Your task to perform on an android device: turn on the 12-hour format for clock Image 0: 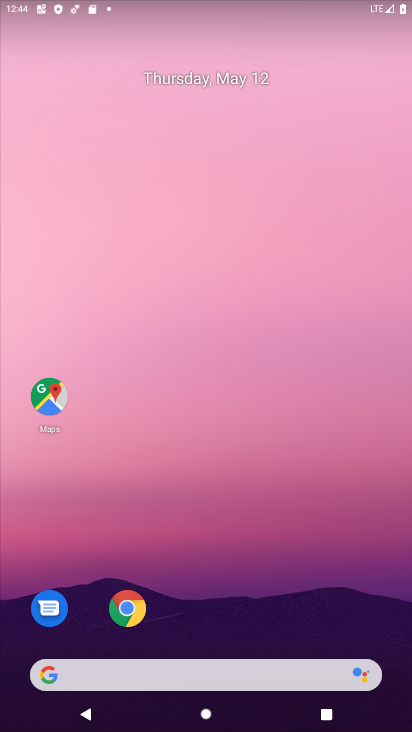
Step 0: drag from (292, 639) to (320, 7)
Your task to perform on an android device: turn on the 12-hour format for clock Image 1: 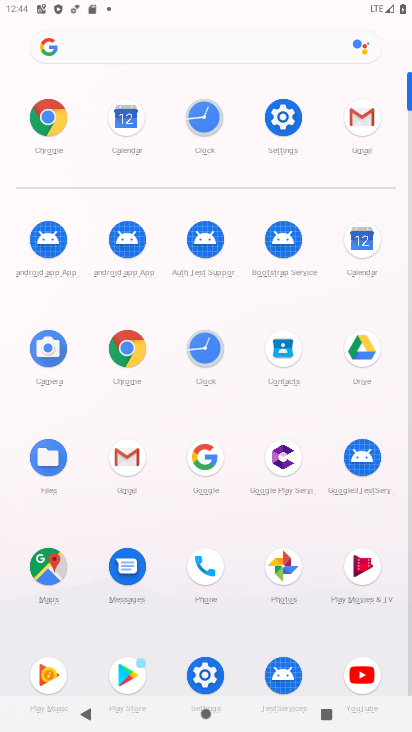
Step 1: click (202, 121)
Your task to perform on an android device: turn on the 12-hour format for clock Image 2: 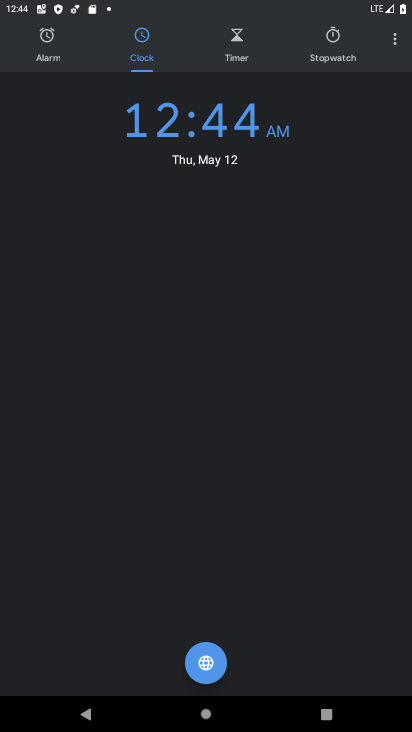
Step 2: click (401, 41)
Your task to perform on an android device: turn on the 12-hour format for clock Image 3: 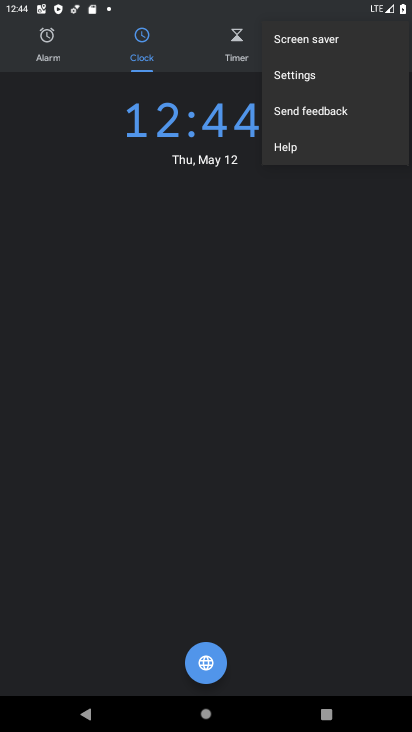
Step 3: click (292, 82)
Your task to perform on an android device: turn on the 12-hour format for clock Image 4: 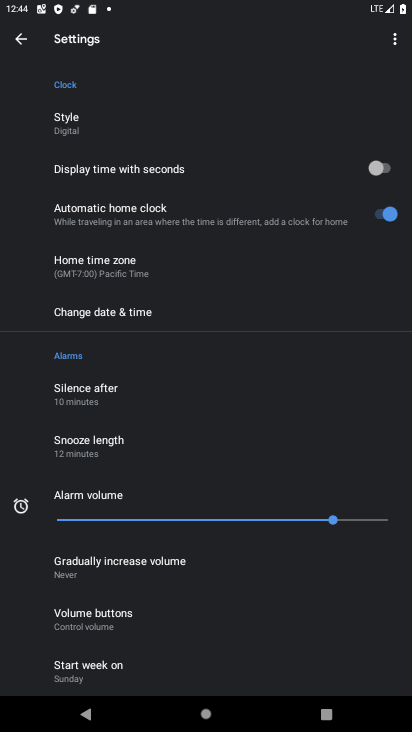
Step 4: click (84, 311)
Your task to perform on an android device: turn on the 12-hour format for clock Image 5: 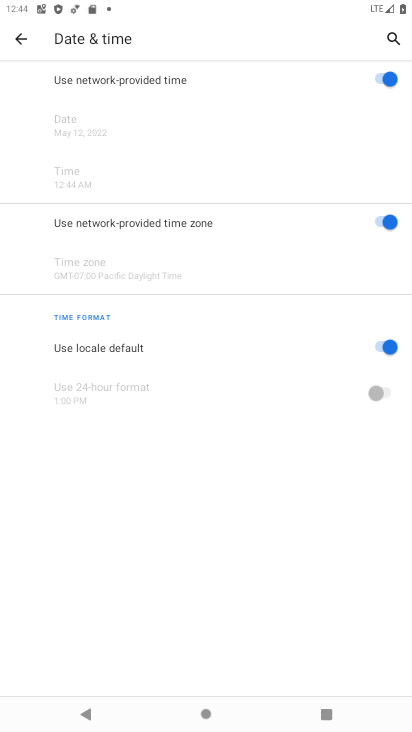
Step 5: task complete